Your task to perform on an android device: check the backup settings in the google photos Image 0: 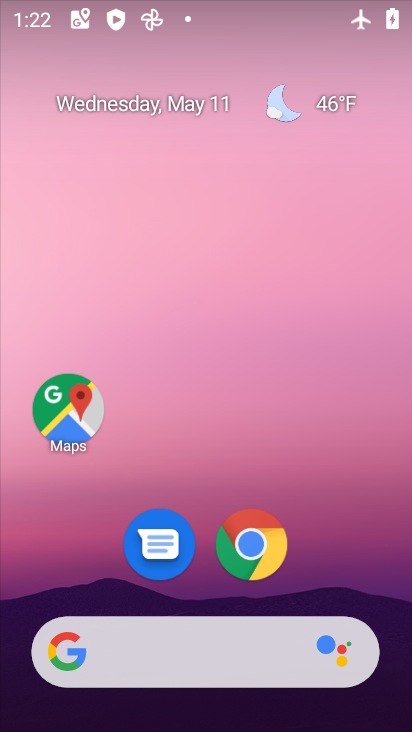
Step 0: drag from (402, 645) to (277, 36)
Your task to perform on an android device: check the backup settings in the google photos Image 1: 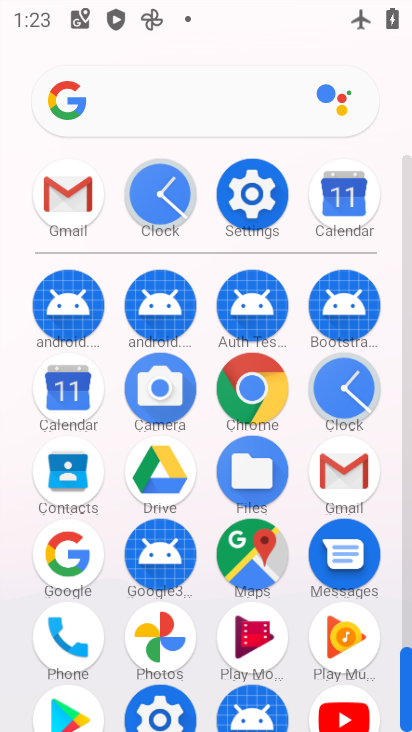
Step 1: click (406, 618)
Your task to perform on an android device: check the backup settings in the google photos Image 2: 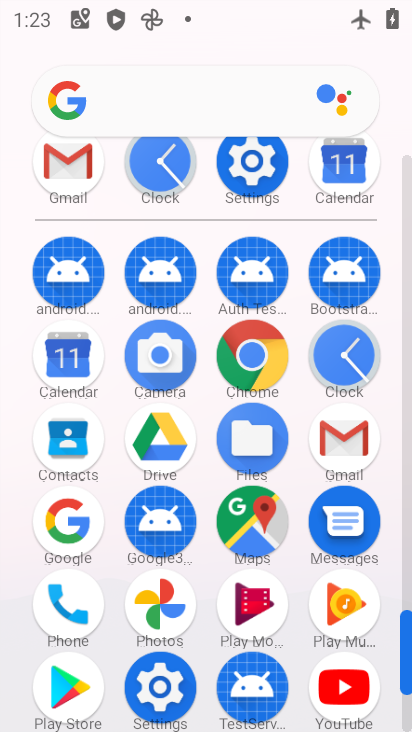
Step 2: click (160, 602)
Your task to perform on an android device: check the backup settings in the google photos Image 3: 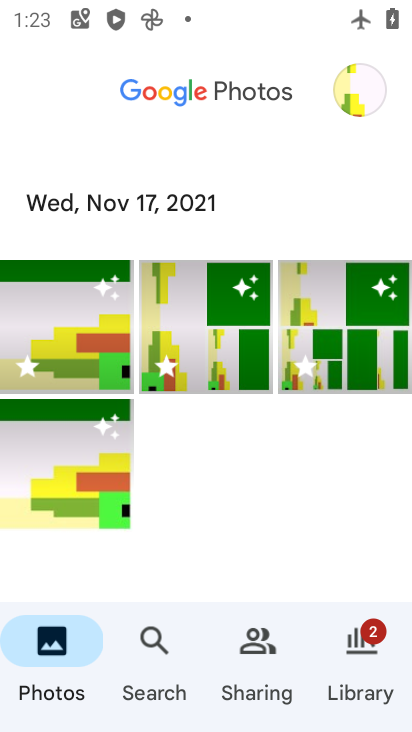
Step 3: click (360, 102)
Your task to perform on an android device: check the backup settings in the google photos Image 4: 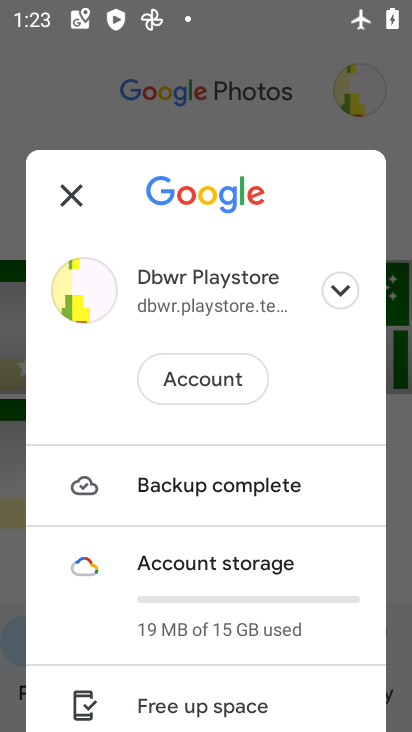
Step 4: drag from (300, 669) to (283, 202)
Your task to perform on an android device: check the backup settings in the google photos Image 5: 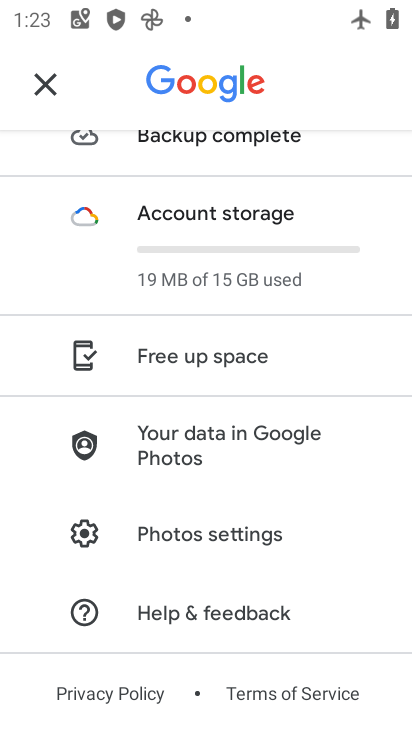
Step 5: click (152, 534)
Your task to perform on an android device: check the backup settings in the google photos Image 6: 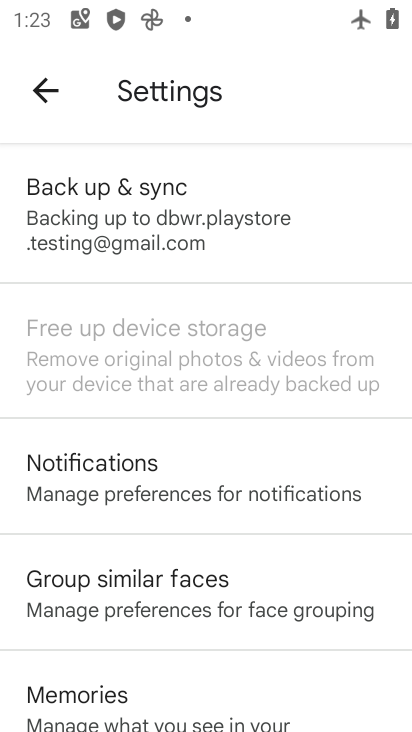
Step 6: click (97, 216)
Your task to perform on an android device: check the backup settings in the google photos Image 7: 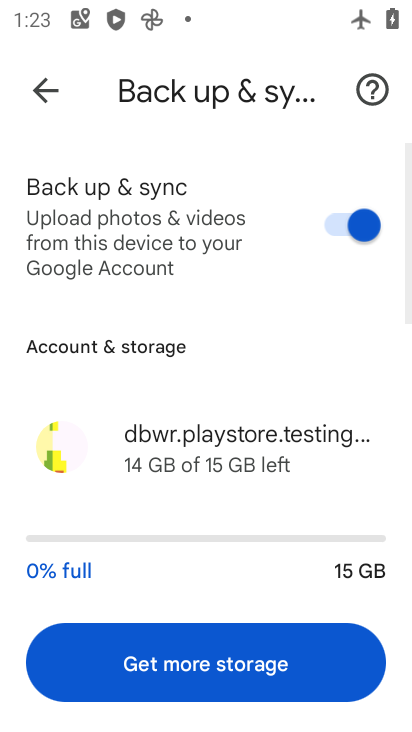
Step 7: task complete